Your task to perform on an android device: Open Google Chrome and open the bookmarks view Image 0: 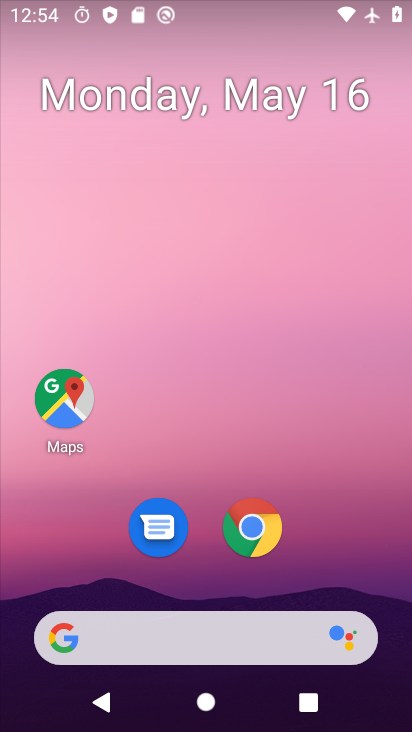
Step 0: press home button
Your task to perform on an android device: Open Google Chrome and open the bookmarks view Image 1: 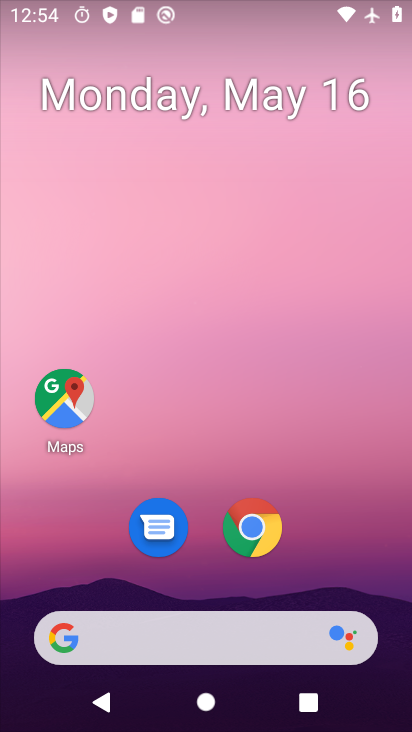
Step 1: click (246, 541)
Your task to perform on an android device: Open Google Chrome and open the bookmarks view Image 2: 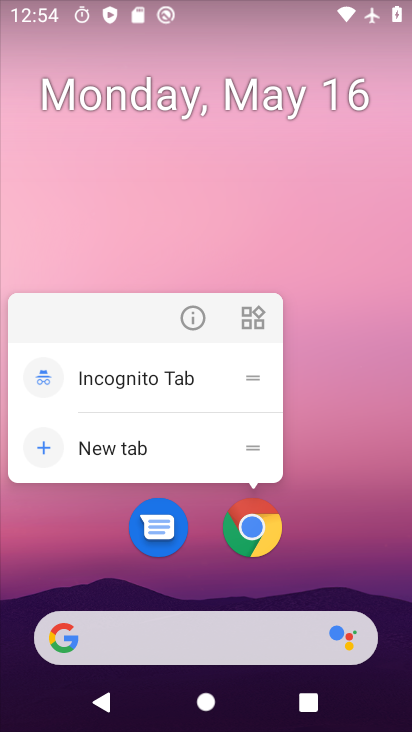
Step 2: click (249, 538)
Your task to perform on an android device: Open Google Chrome and open the bookmarks view Image 3: 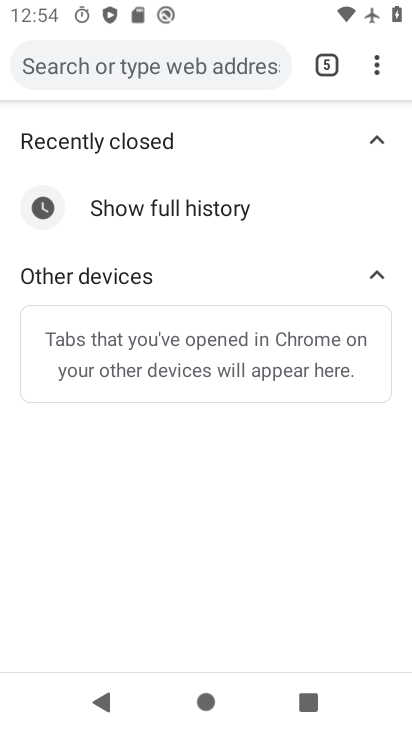
Step 3: task complete